Your task to perform on an android device: Do I have any events tomorrow? Image 0: 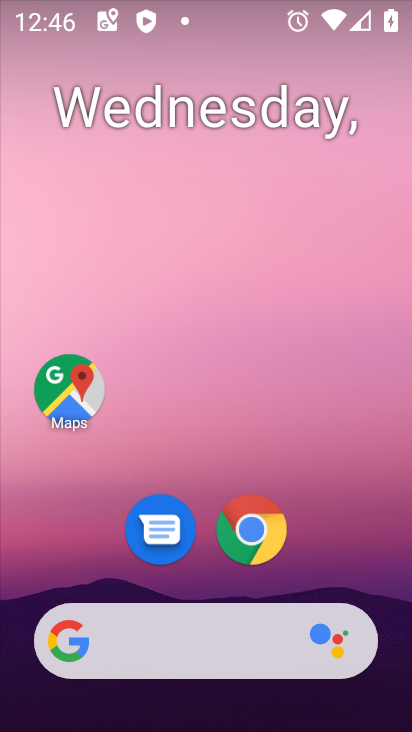
Step 0: drag from (394, 622) to (300, 153)
Your task to perform on an android device: Do I have any events tomorrow? Image 1: 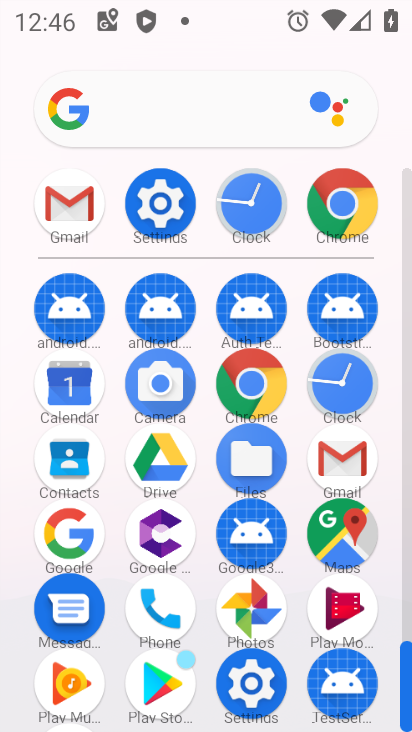
Step 1: click (66, 385)
Your task to perform on an android device: Do I have any events tomorrow? Image 2: 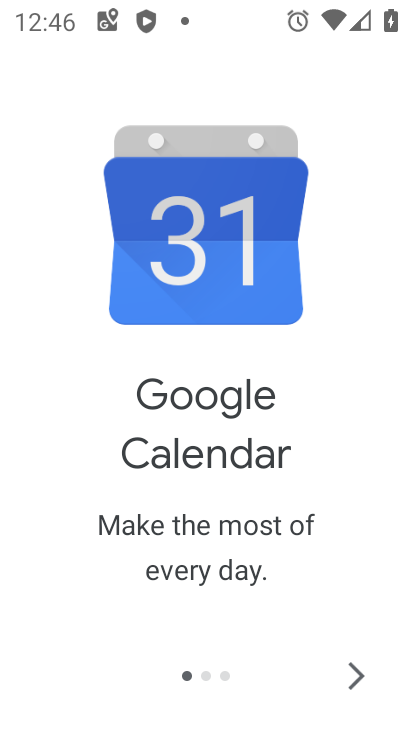
Step 2: click (359, 670)
Your task to perform on an android device: Do I have any events tomorrow? Image 3: 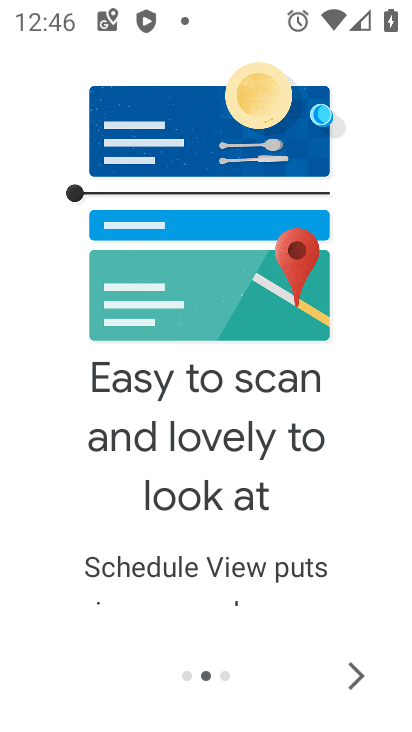
Step 3: click (354, 680)
Your task to perform on an android device: Do I have any events tomorrow? Image 4: 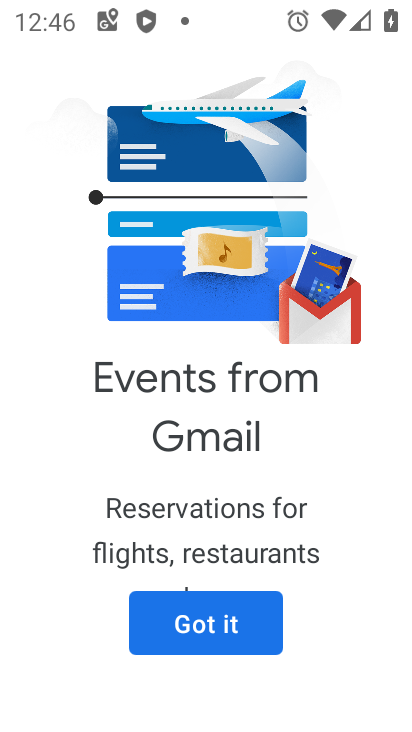
Step 4: click (194, 624)
Your task to perform on an android device: Do I have any events tomorrow? Image 5: 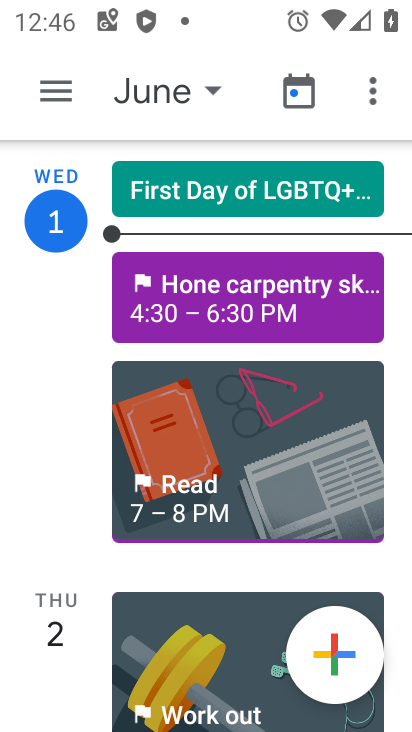
Step 5: click (49, 80)
Your task to perform on an android device: Do I have any events tomorrow? Image 6: 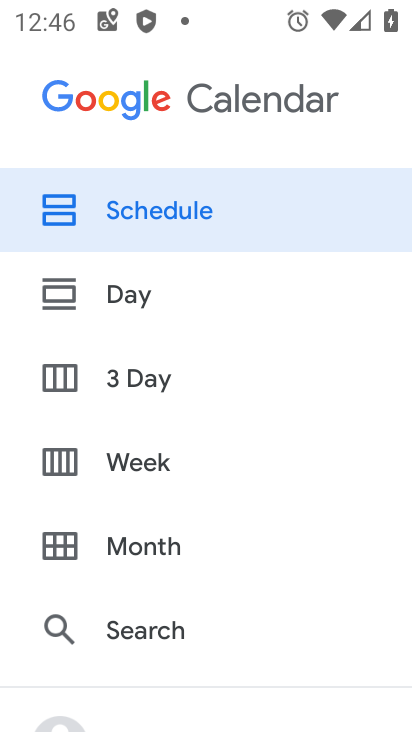
Step 6: click (138, 298)
Your task to perform on an android device: Do I have any events tomorrow? Image 7: 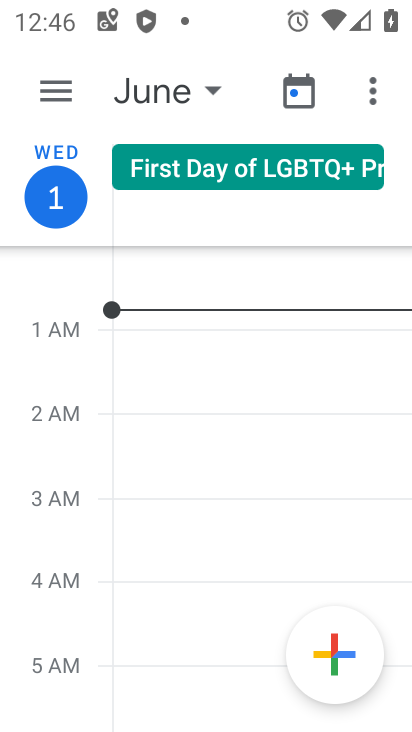
Step 7: click (211, 91)
Your task to perform on an android device: Do I have any events tomorrow? Image 8: 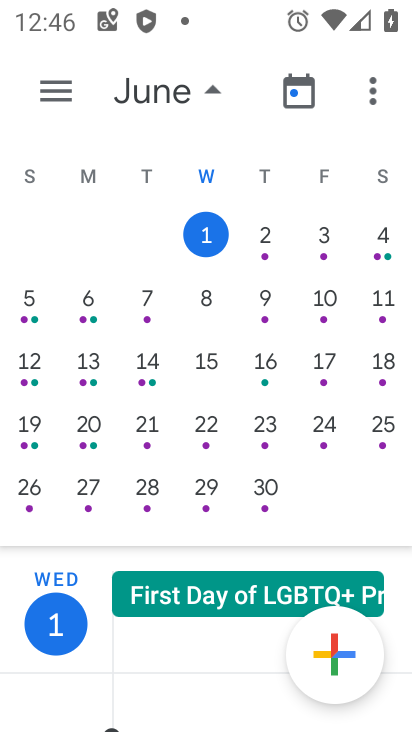
Step 8: drag from (37, 351) to (106, 368)
Your task to perform on an android device: Do I have any events tomorrow? Image 9: 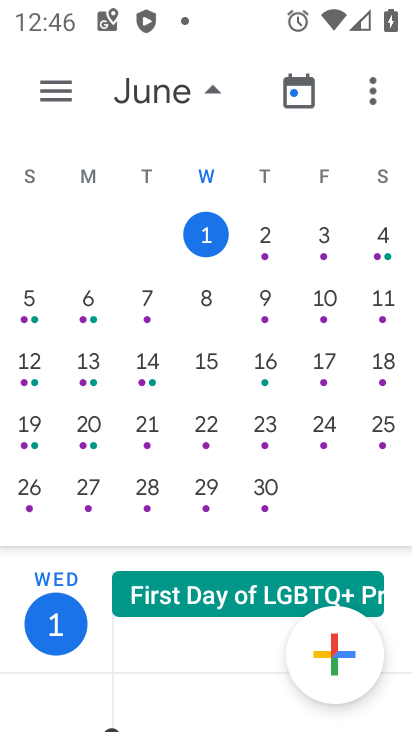
Step 9: click (266, 230)
Your task to perform on an android device: Do I have any events tomorrow? Image 10: 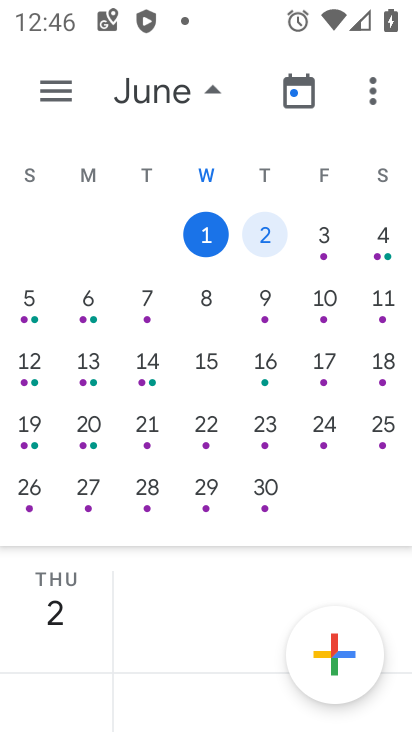
Step 10: task complete